Your task to perform on an android device: Go to eBay Image 0: 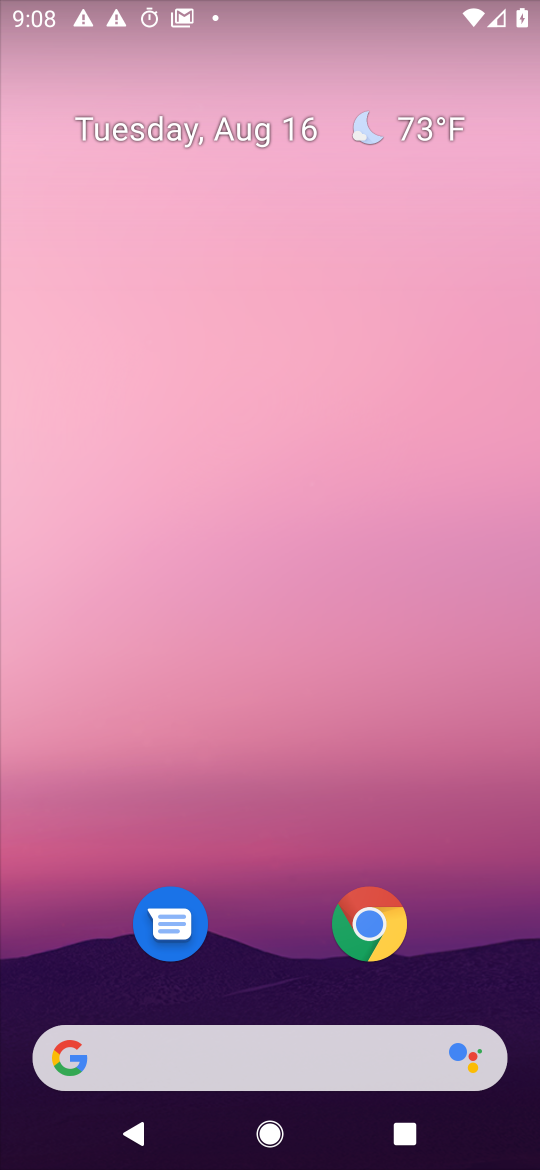
Step 0: click (372, 920)
Your task to perform on an android device: Go to eBay Image 1: 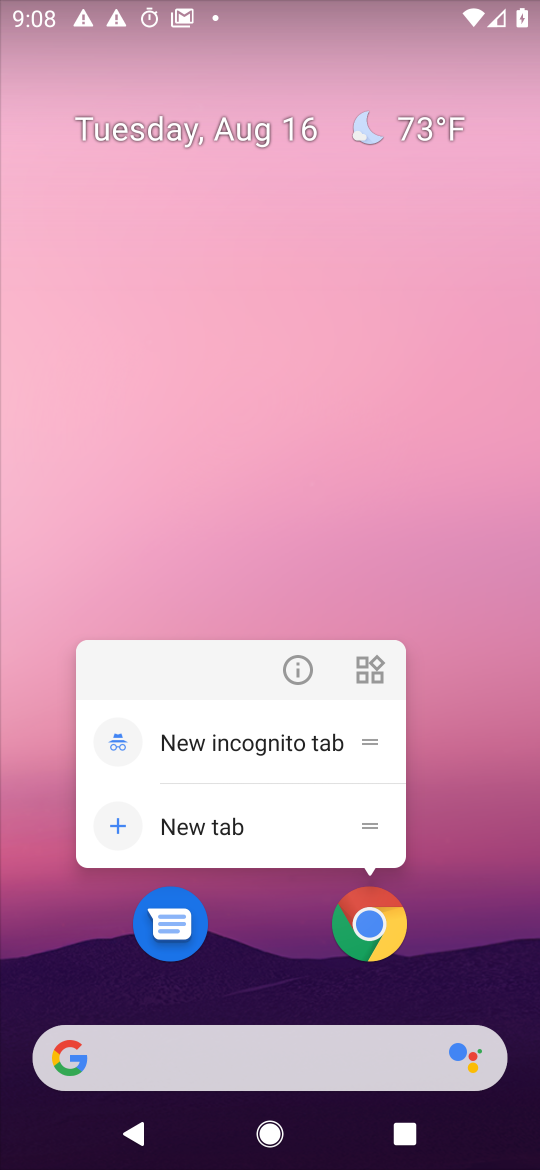
Step 1: click (383, 919)
Your task to perform on an android device: Go to eBay Image 2: 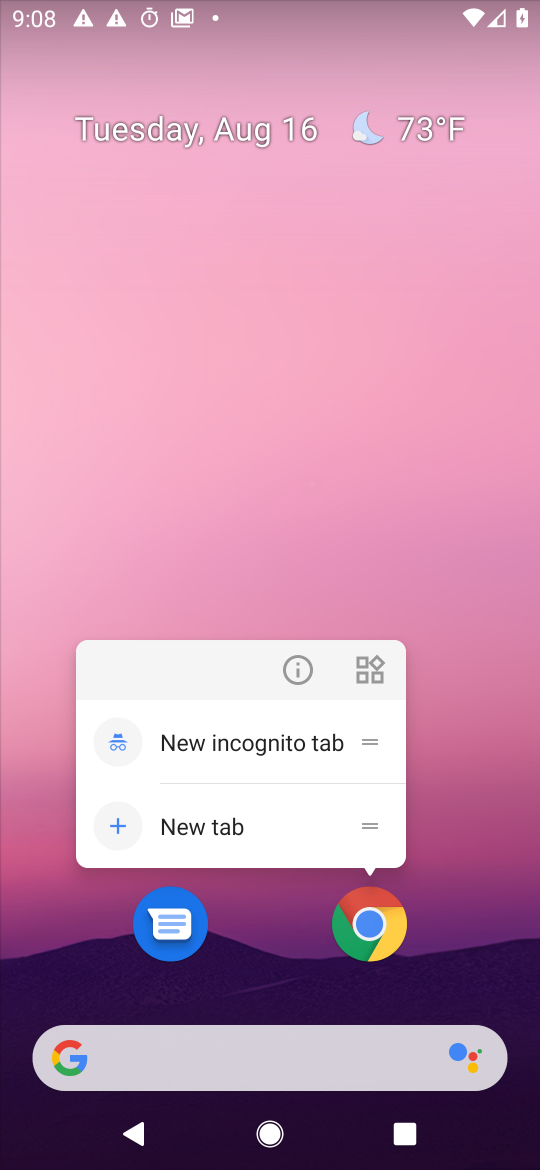
Step 2: click (364, 946)
Your task to perform on an android device: Go to eBay Image 3: 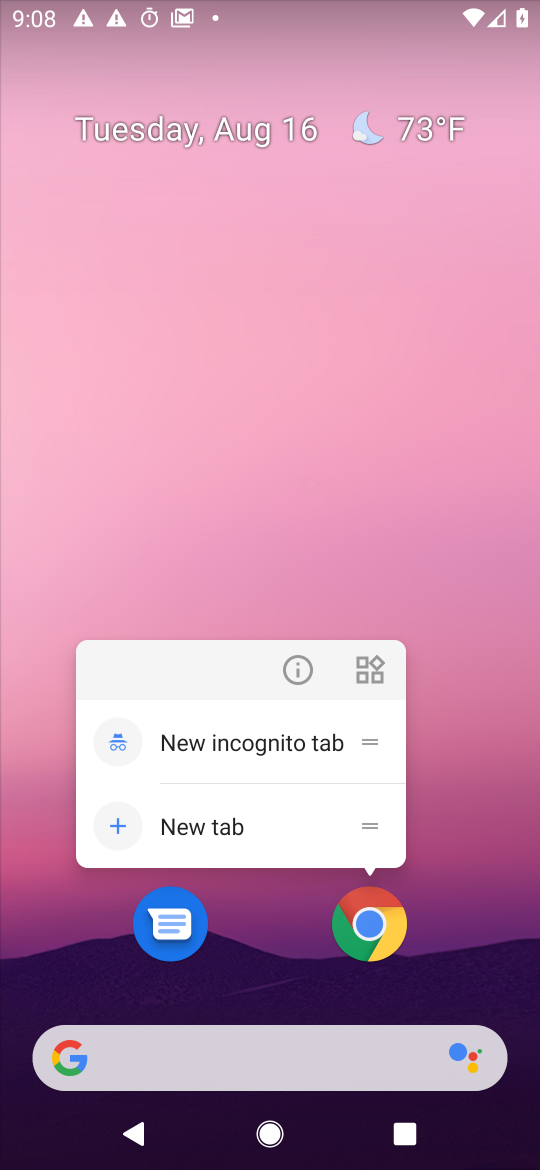
Step 3: click (376, 911)
Your task to perform on an android device: Go to eBay Image 4: 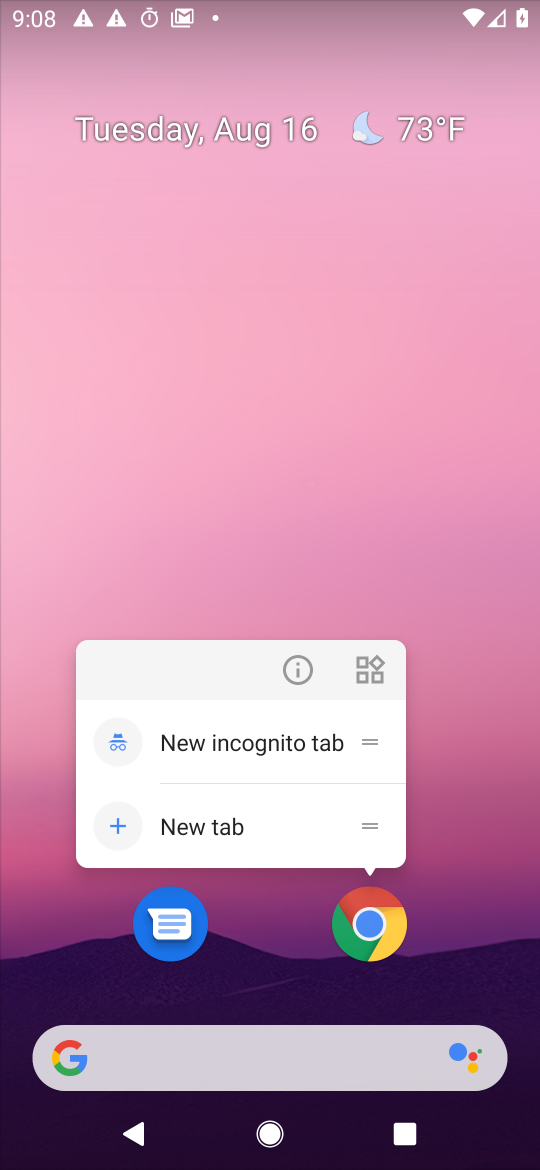
Step 4: click (363, 941)
Your task to perform on an android device: Go to eBay Image 5: 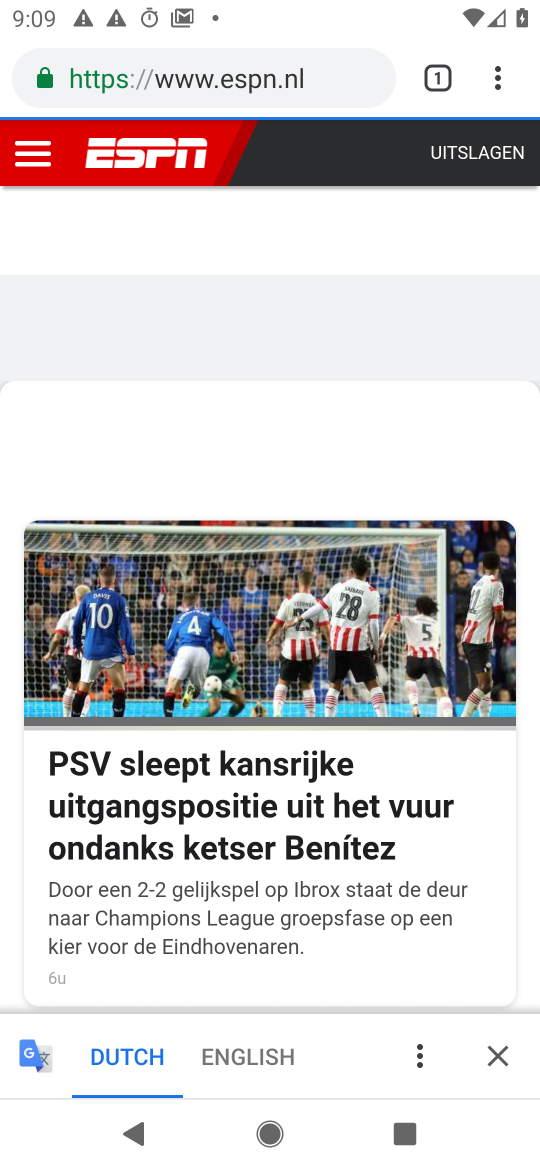
Step 5: click (444, 73)
Your task to perform on an android device: Go to eBay Image 6: 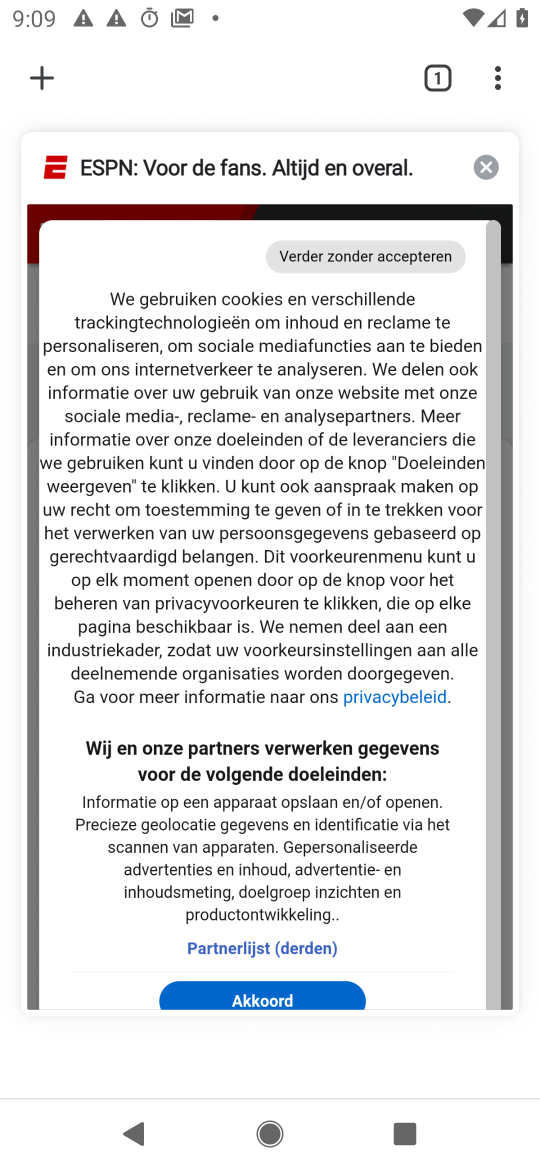
Step 6: click (48, 71)
Your task to perform on an android device: Go to eBay Image 7: 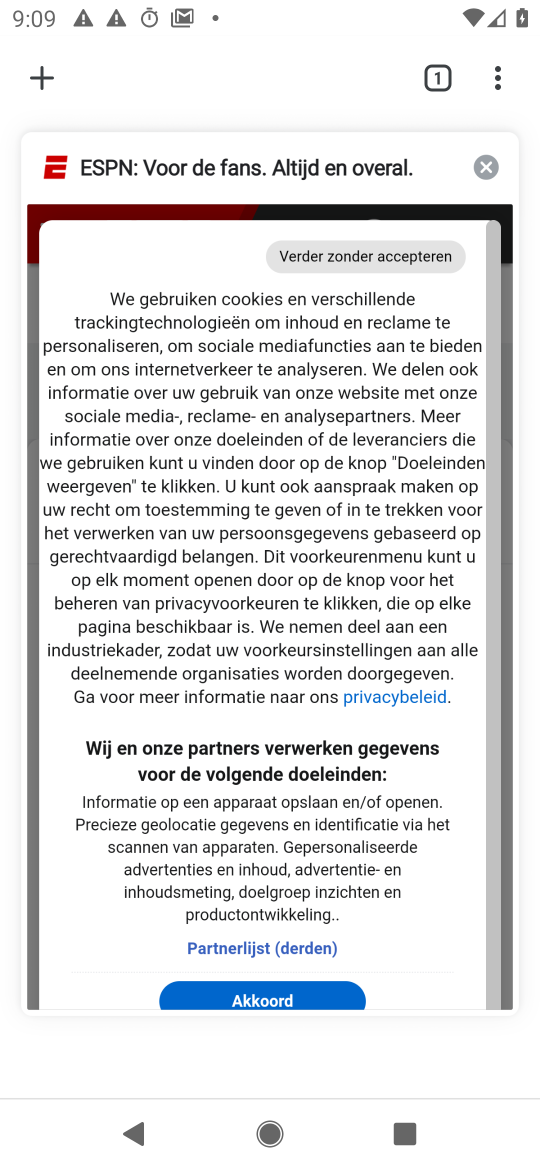
Step 7: click (42, 83)
Your task to perform on an android device: Go to eBay Image 8: 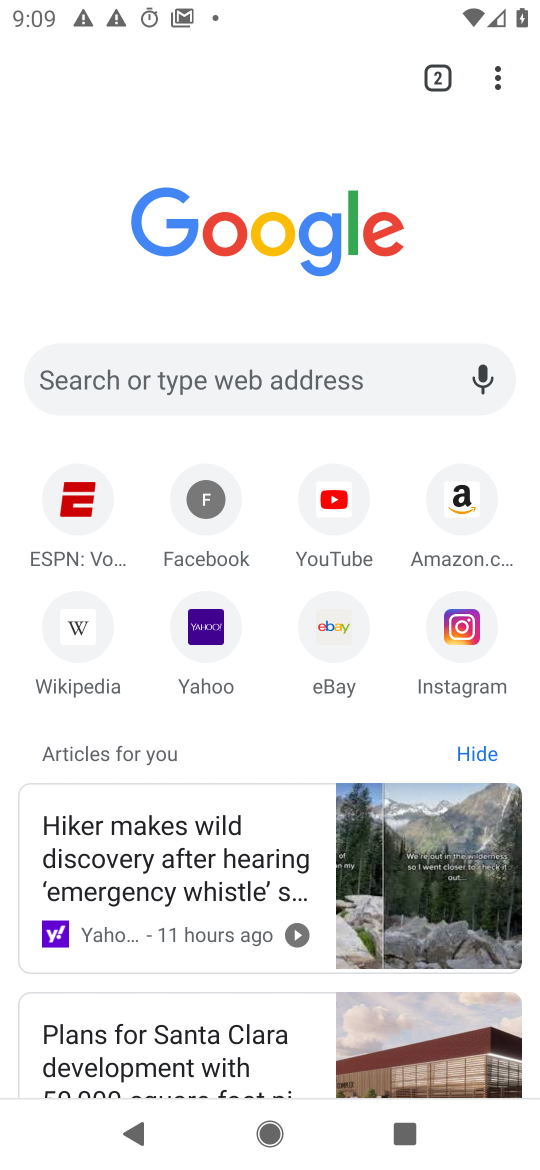
Step 8: click (331, 624)
Your task to perform on an android device: Go to eBay Image 9: 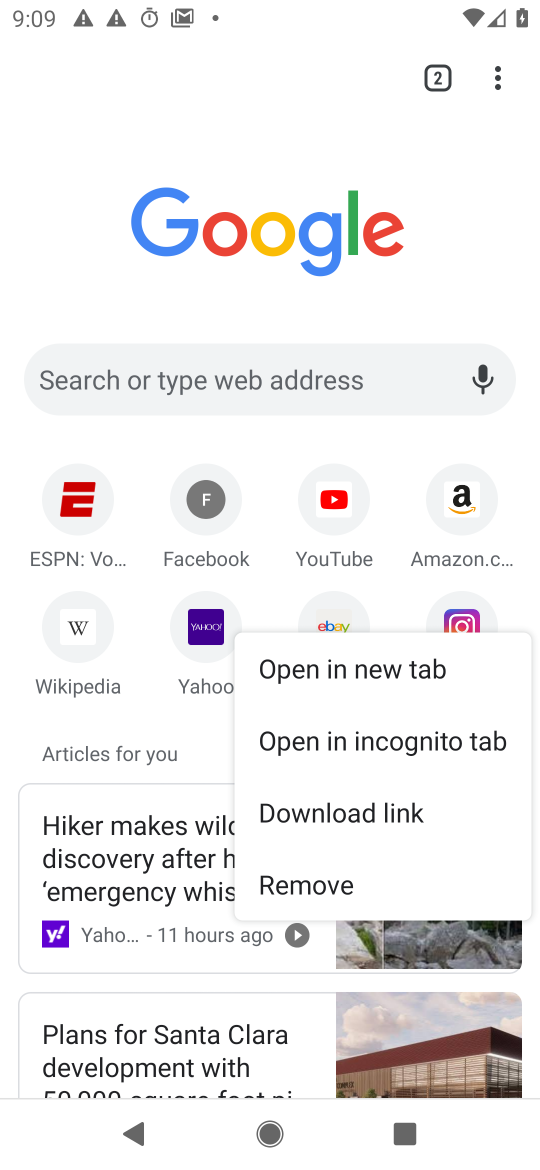
Step 9: click (333, 608)
Your task to perform on an android device: Go to eBay Image 10: 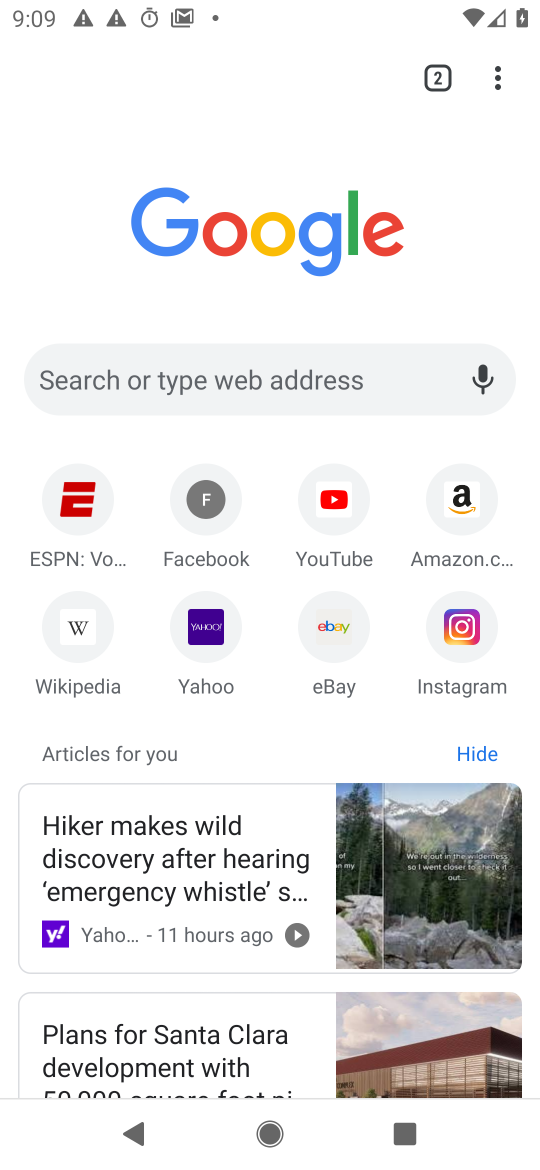
Step 10: click (333, 626)
Your task to perform on an android device: Go to eBay Image 11: 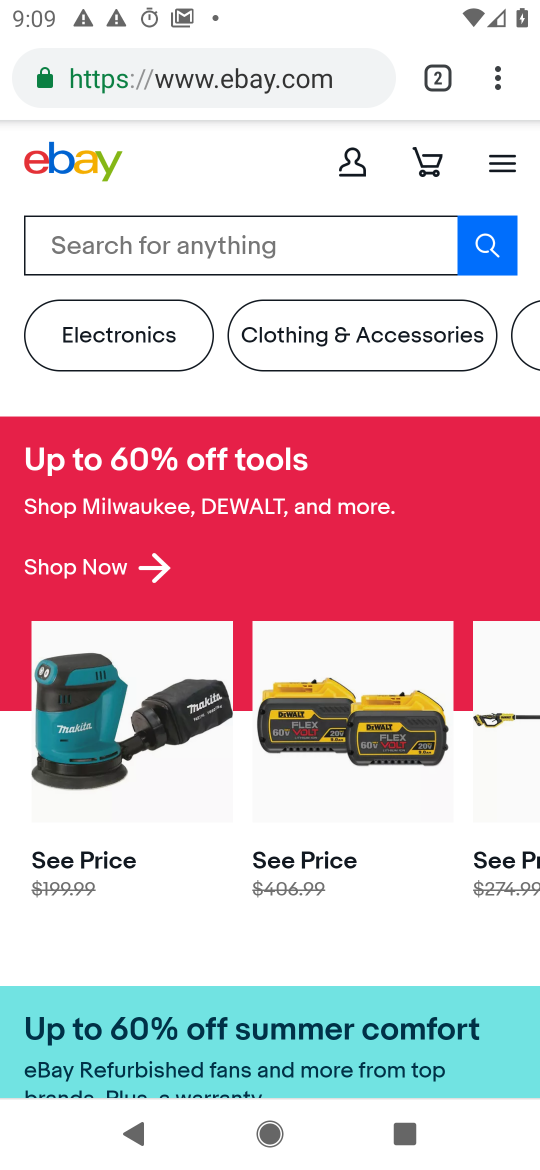
Step 11: task complete